Your task to perform on an android device: change the clock display to analog Image 0: 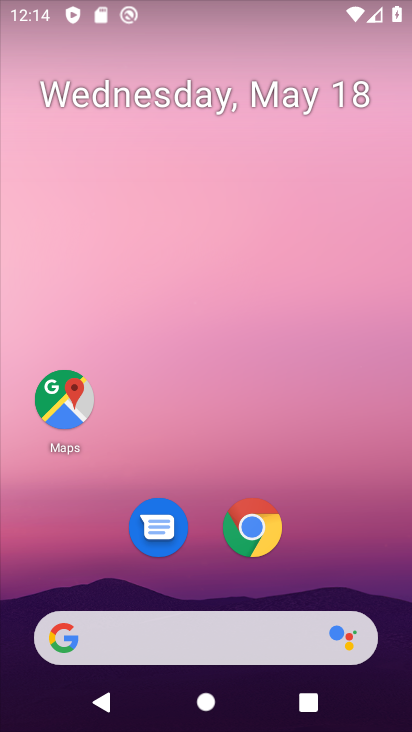
Step 0: drag from (229, 583) to (261, 25)
Your task to perform on an android device: change the clock display to analog Image 1: 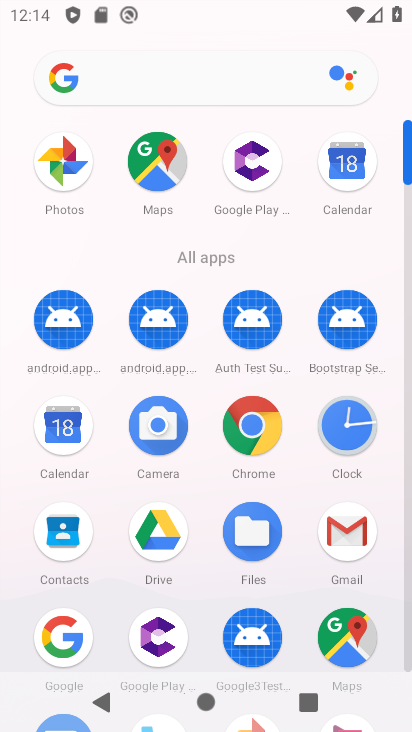
Step 1: click (365, 430)
Your task to perform on an android device: change the clock display to analog Image 2: 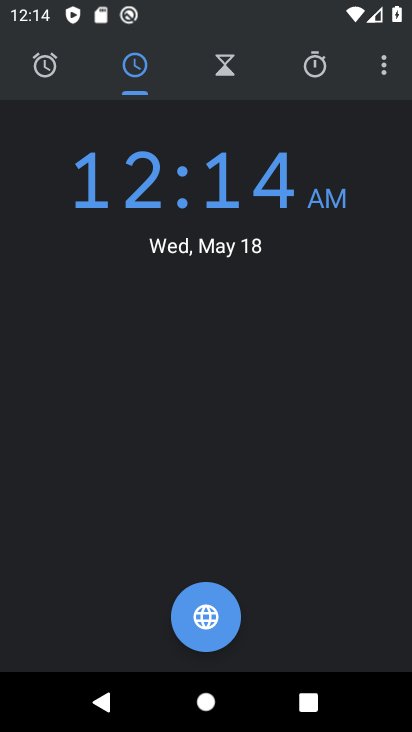
Step 2: click (383, 69)
Your task to perform on an android device: change the clock display to analog Image 3: 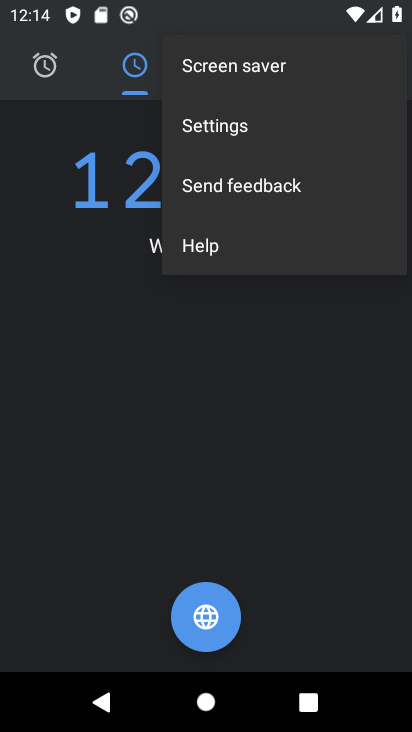
Step 3: click (222, 136)
Your task to perform on an android device: change the clock display to analog Image 4: 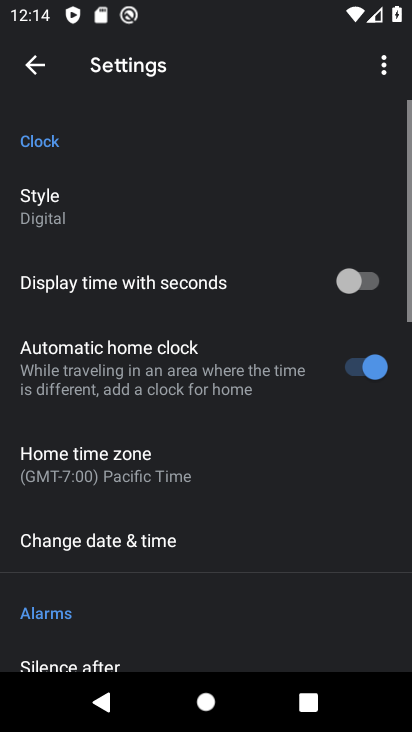
Step 4: click (68, 214)
Your task to perform on an android device: change the clock display to analog Image 5: 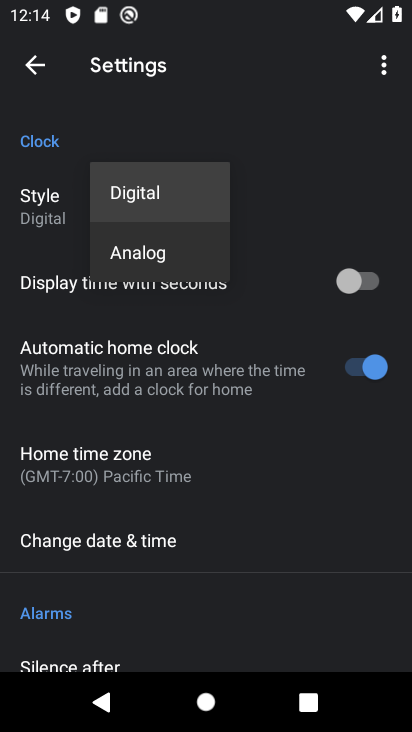
Step 5: click (112, 262)
Your task to perform on an android device: change the clock display to analog Image 6: 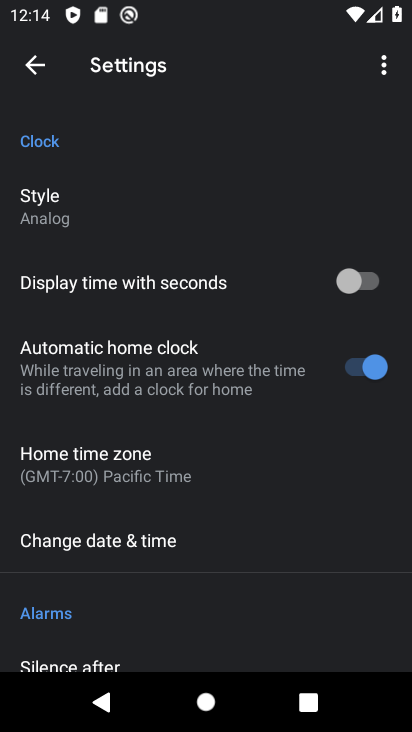
Step 6: task complete